Your task to perform on an android device: Go to CNN.com Image 0: 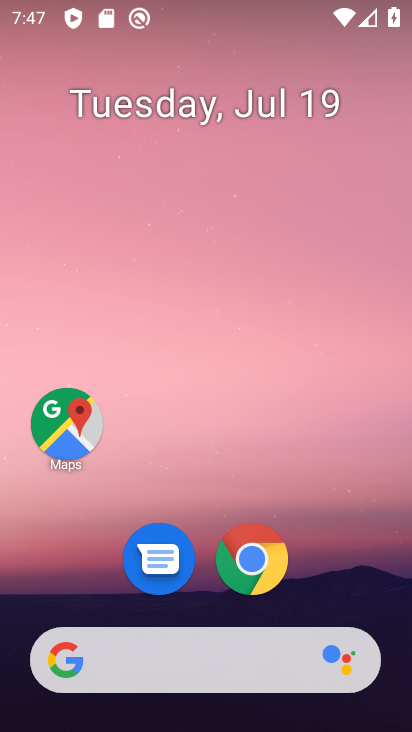
Step 0: click (253, 556)
Your task to perform on an android device: Go to CNN.com Image 1: 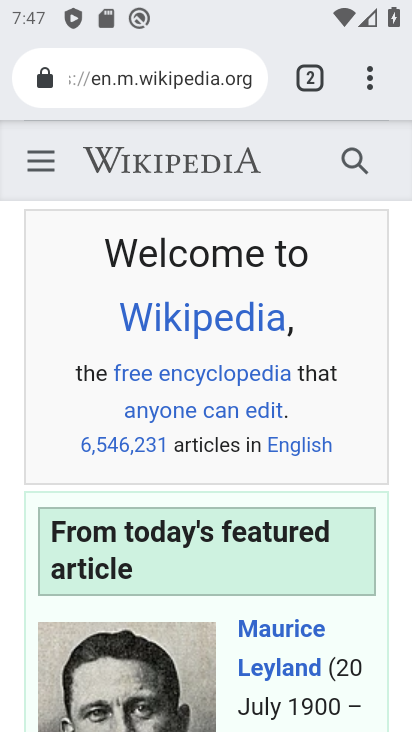
Step 1: click (315, 82)
Your task to perform on an android device: Go to CNN.com Image 2: 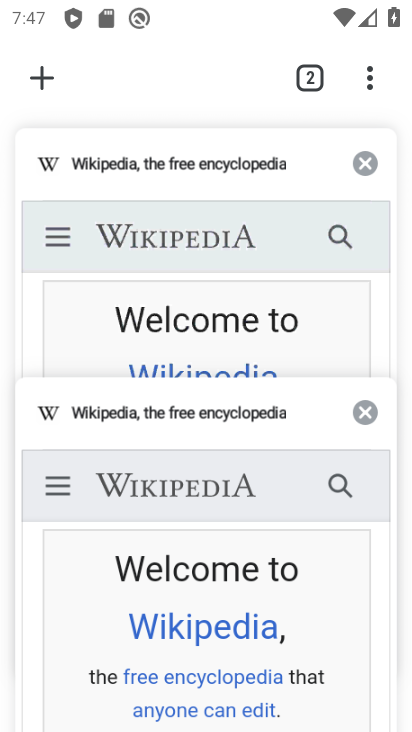
Step 2: click (36, 72)
Your task to perform on an android device: Go to CNN.com Image 3: 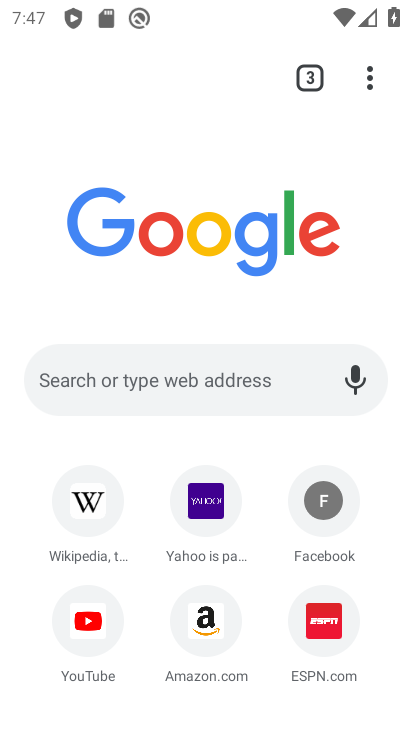
Step 3: drag from (185, 615) to (251, 247)
Your task to perform on an android device: Go to CNN.com Image 4: 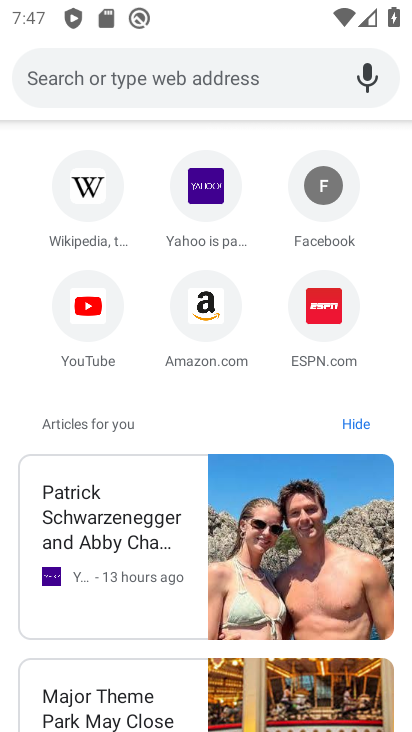
Step 4: click (175, 81)
Your task to perform on an android device: Go to CNN.com Image 5: 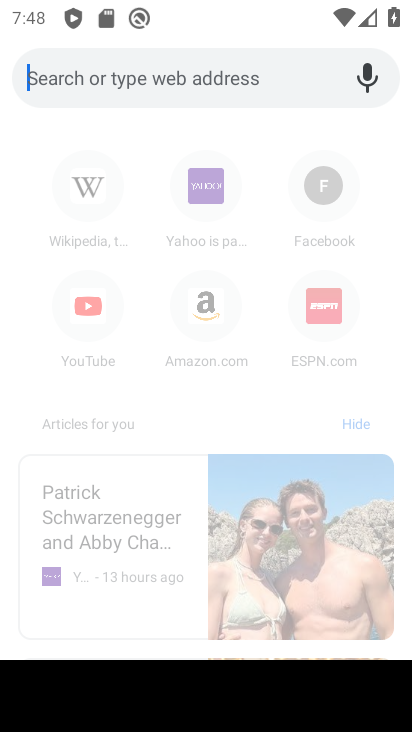
Step 5: type "cnn.com"
Your task to perform on an android device: Go to CNN.com Image 6: 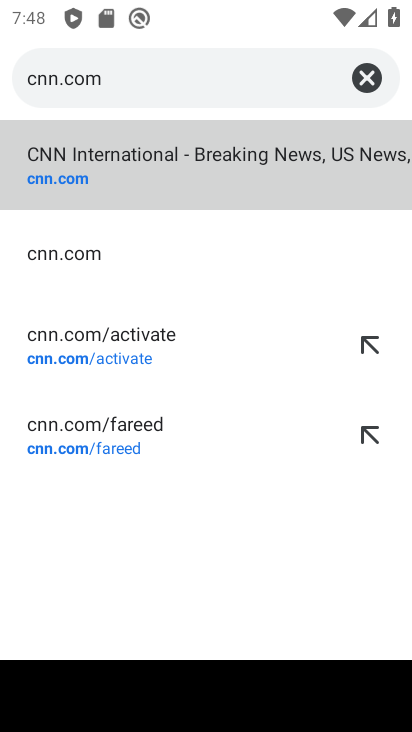
Step 6: click (141, 167)
Your task to perform on an android device: Go to CNN.com Image 7: 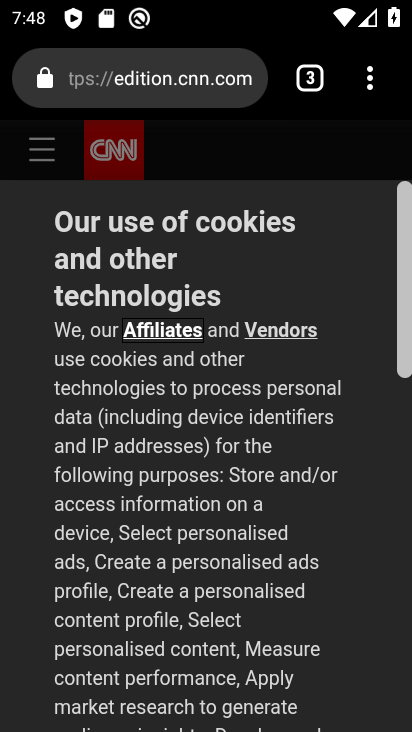
Step 7: task complete